Your task to perform on an android device: Search for vegetarian restaurants on Maps Image 0: 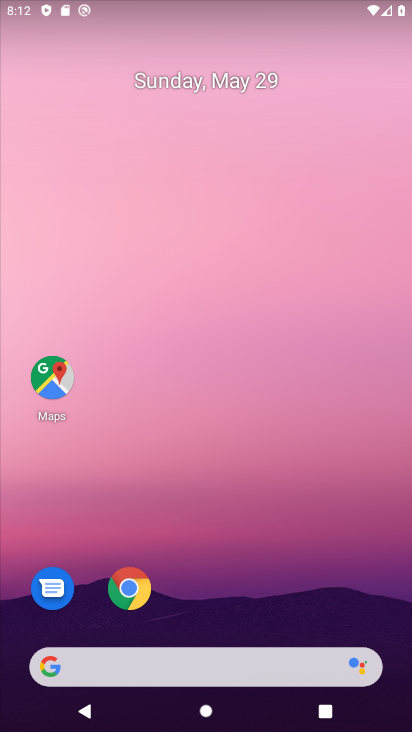
Step 0: click (59, 377)
Your task to perform on an android device: Search for vegetarian restaurants on Maps Image 1: 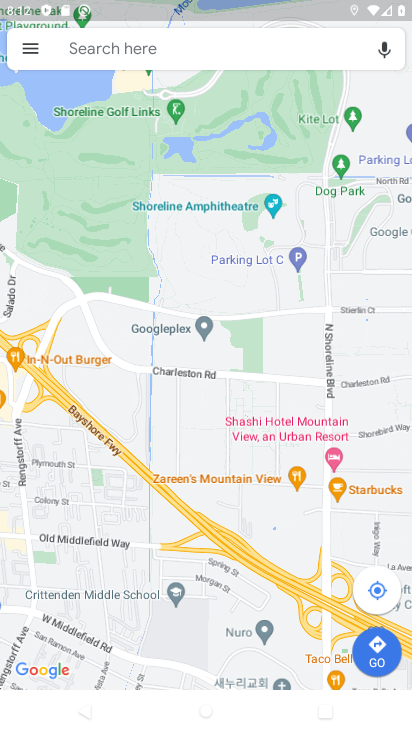
Step 1: click (251, 40)
Your task to perform on an android device: Search for vegetarian restaurants on Maps Image 2: 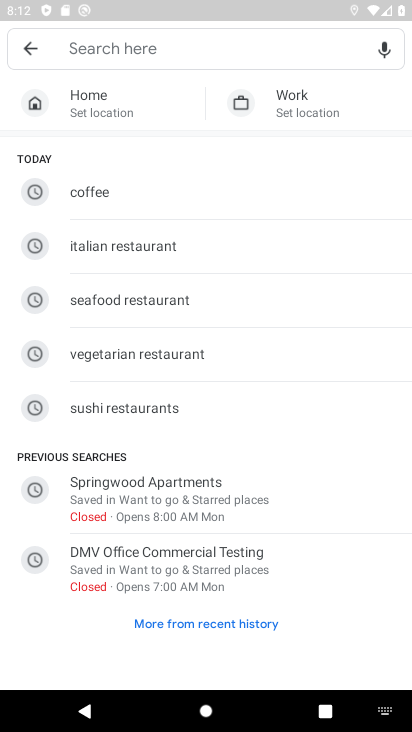
Step 2: type " vegetarian restaurants "
Your task to perform on an android device: Search for vegetarian restaurants on Maps Image 3: 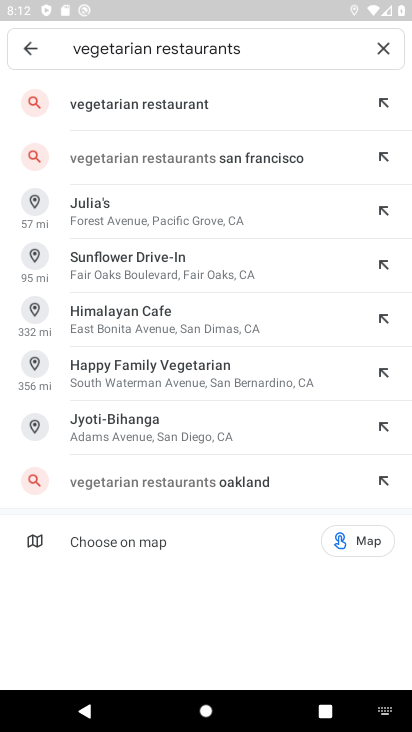
Step 3: click (167, 105)
Your task to perform on an android device: Search for vegetarian restaurants on Maps Image 4: 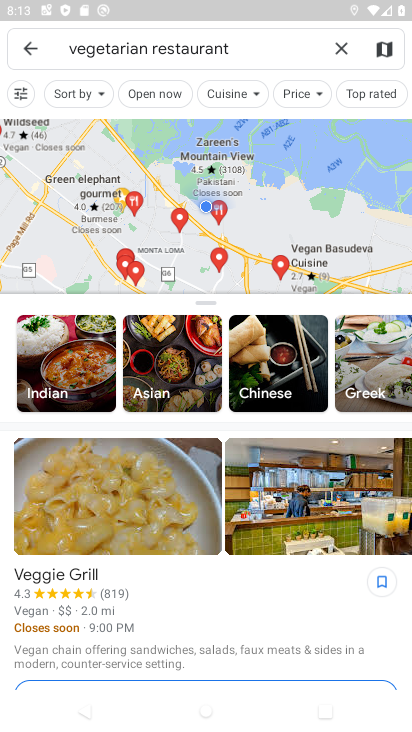
Step 4: task complete